Your task to perform on an android device: turn on bluetooth scan Image 0: 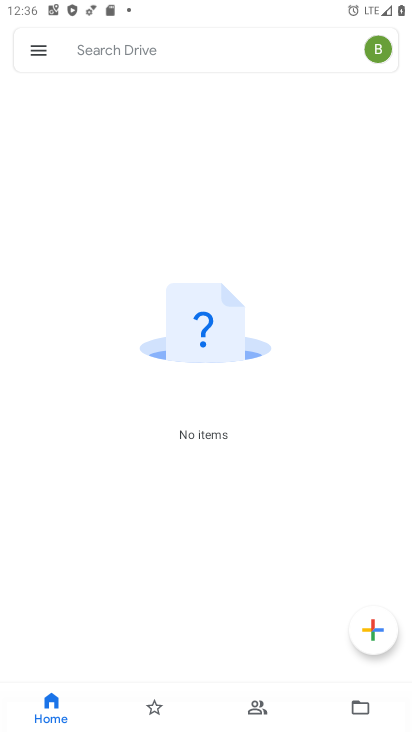
Step 0: press home button
Your task to perform on an android device: turn on bluetooth scan Image 1: 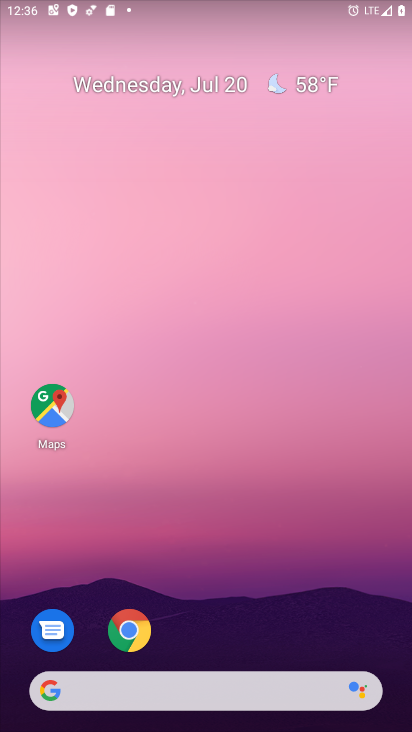
Step 1: drag from (242, 636) to (244, 149)
Your task to perform on an android device: turn on bluetooth scan Image 2: 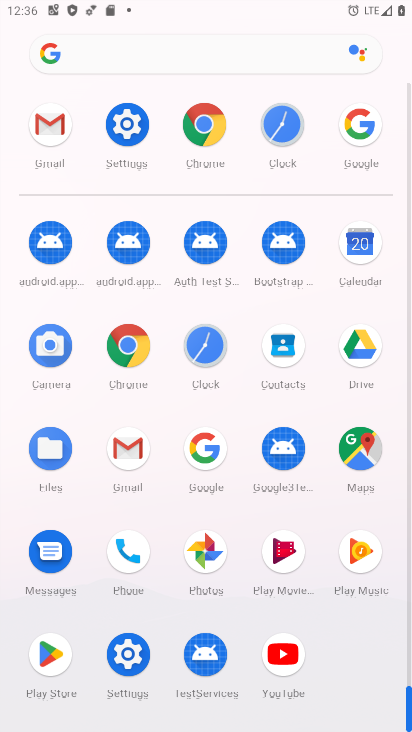
Step 2: click (142, 145)
Your task to perform on an android device: turn on bluetooth scan Image 3: 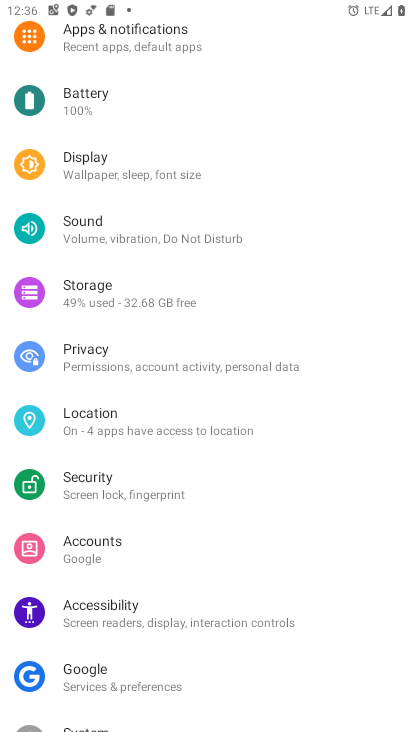
Step 3: drag from (176, 222) to (194, 539)
Your task to perform on an android device: turn on bluetooth scan Image 4: 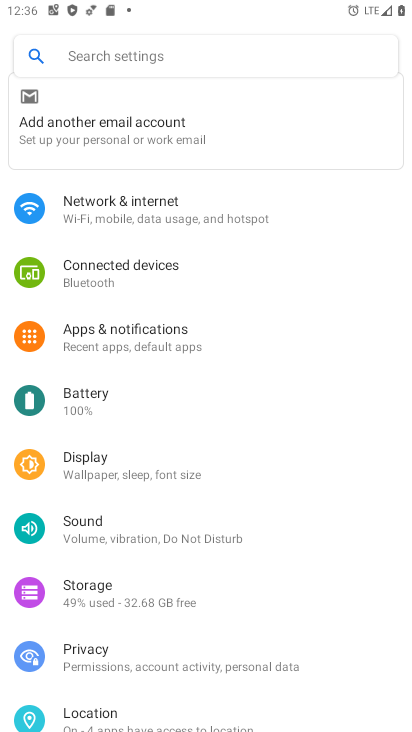
Step 4: click (170, 287)
Your task to perform on an android device: turn on bluetooth scan Image 5: 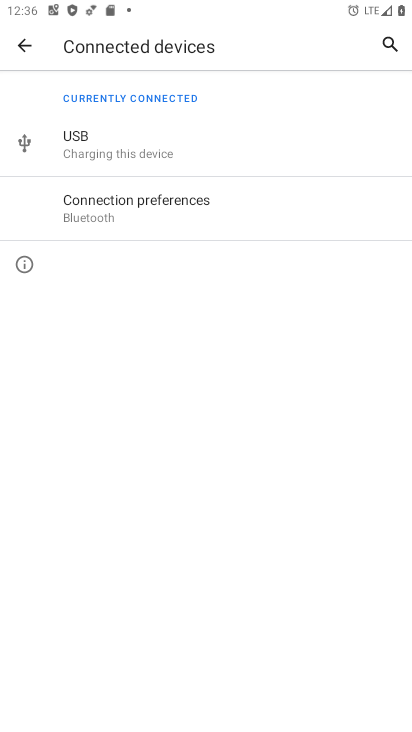
Step 5: click (160, 224)
Your task to perform on an android device: turn on bluetooth scan Image 6: 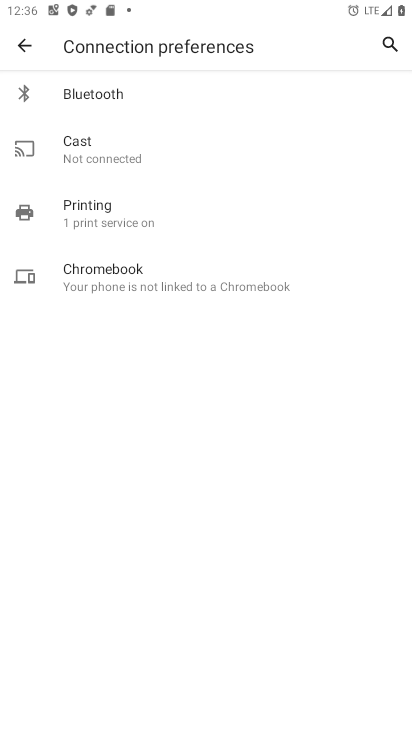
Step 6: click (150, 100)
Your task to perform on an android device: turn on bluetooth scan Image 7: 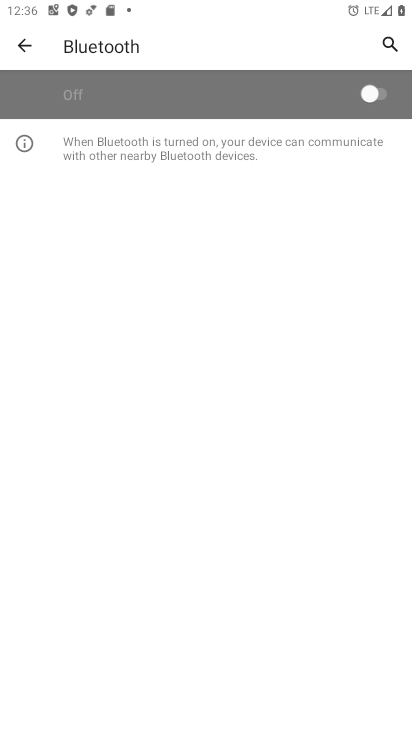
Step 7: task complete